Your task to perform on an android device: turn on showing notifications on the lock screen Image 0: 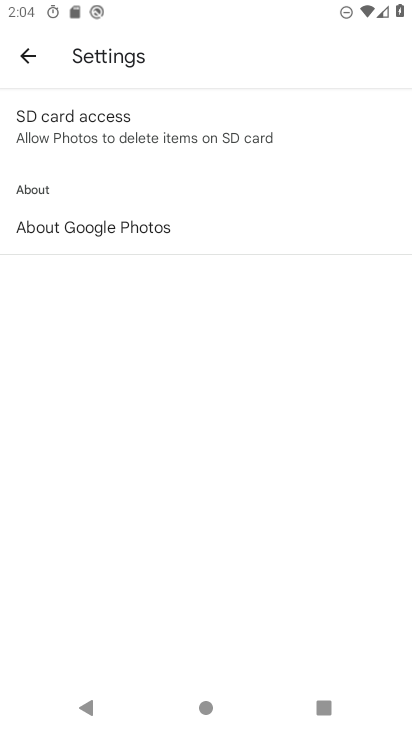
Step 0: press home button
Your task to perform on an android device: turn on showing notifications on the lock screen Image 1: 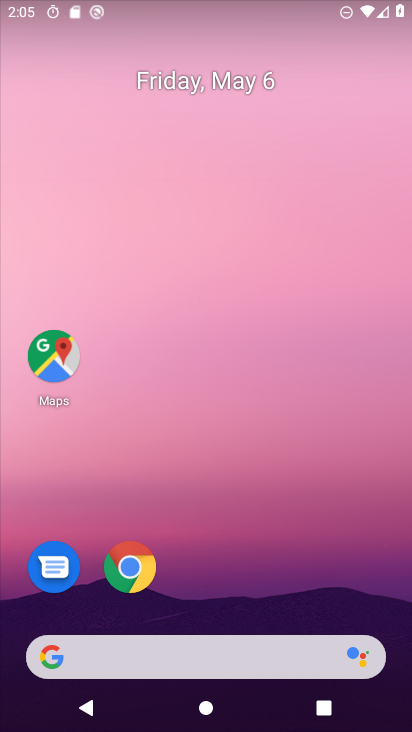
Step 1: drag from (249, 627) to (271, 249)
Your task to perform on an android device: turn on showing notifications on the lock screen Image 2: 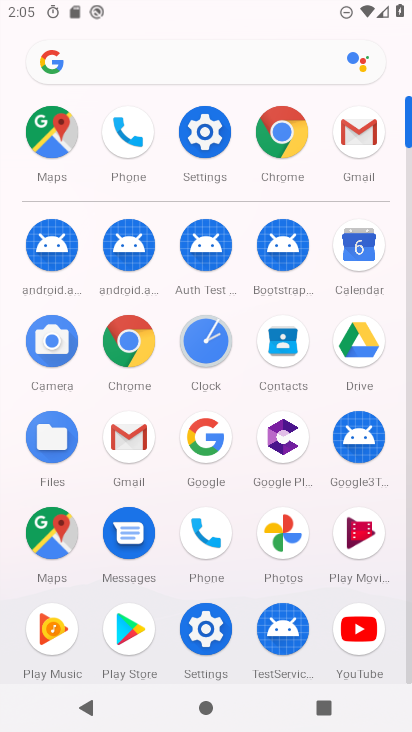
Step 2: click (206, 128)
Your task to perform on an android device: turn on showing notifications on the lock screen Image 3: 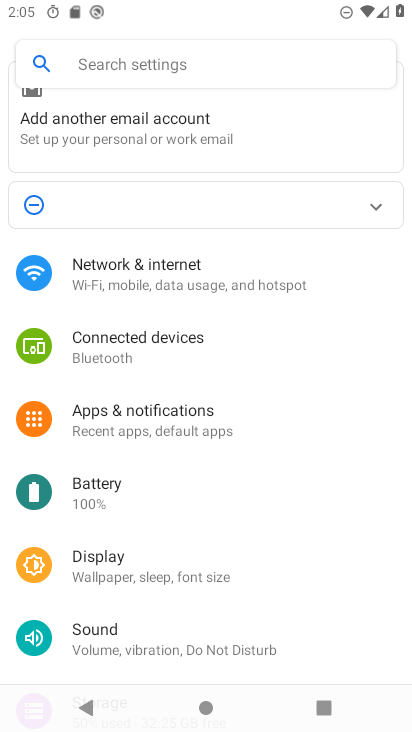
Step 3: click (172, 62)
Your task to perform on an android device: turn on showing notifications on the lock screen Image 4: 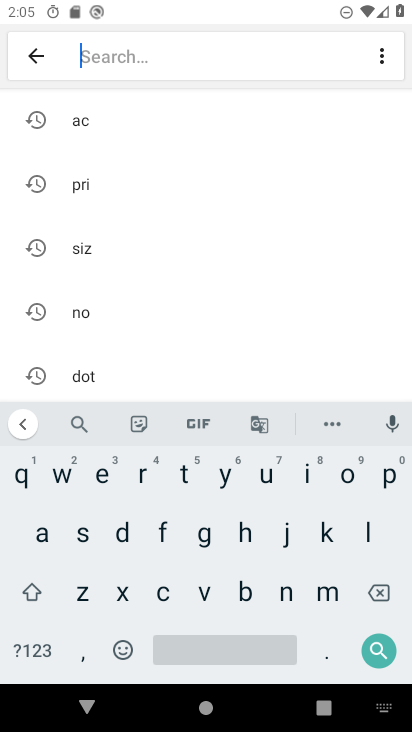
Step 4: click (83, 311)
Your task to perform on an android device: turn on showing notifications on the lock screen Image 5: 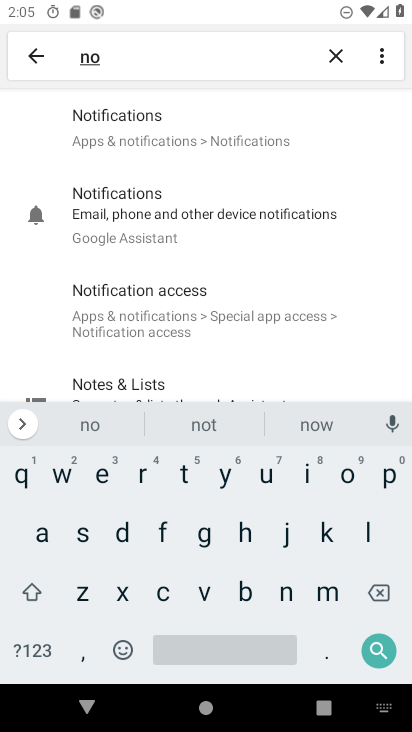
Step 5: click (189, 150)
Your task to perform on an android device: turn on showing notifications on the lock screen Image 6: 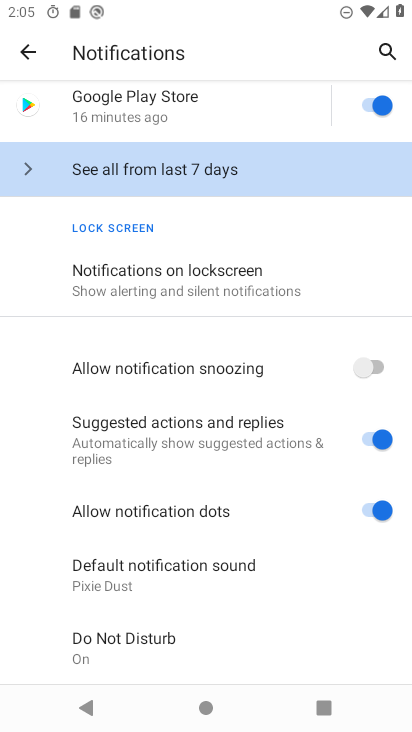
Step 6: click (142, 276)
Your task to perform on an android device: turn on showing notifications on the lock screen Image 7: 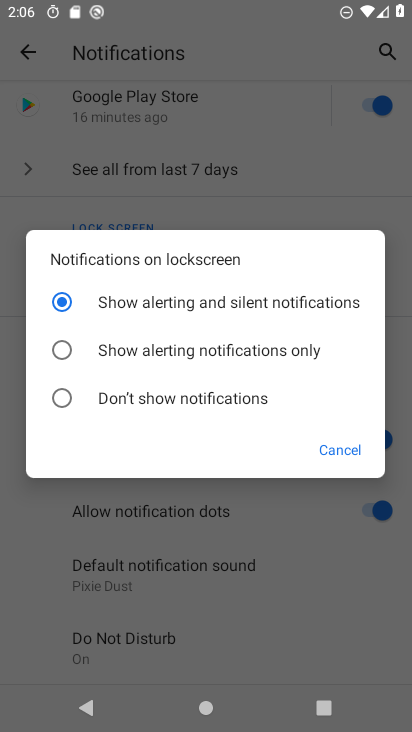
Step 7: task complete